Your task to perform on an android device: Open the phone app and click the voicemail tab. Image 0: 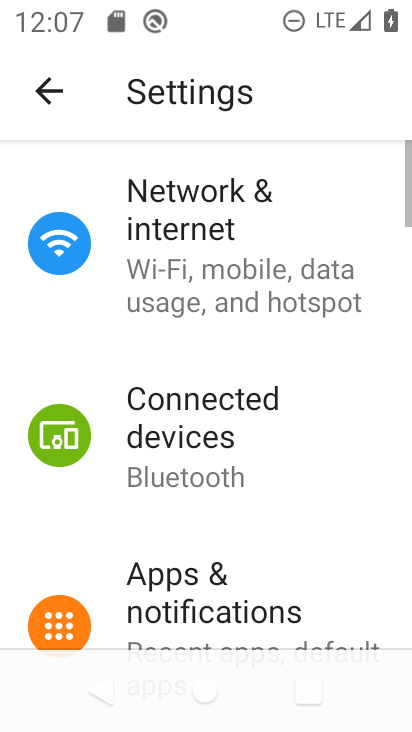
Step 0: press home button
Your task to perform on an android device: Open the phone app and click the voicemail tab. Image 1: 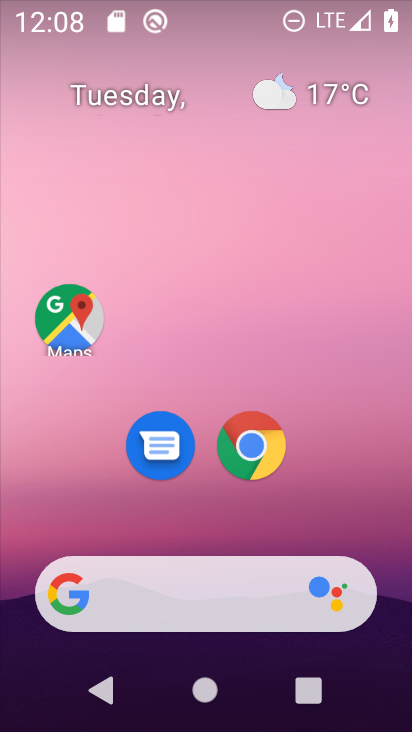
Step 1: drag from (389, 591) to (365, 121)
Your task to perform on an android device: Open the phone app and click the voicemail tab. Image 2: 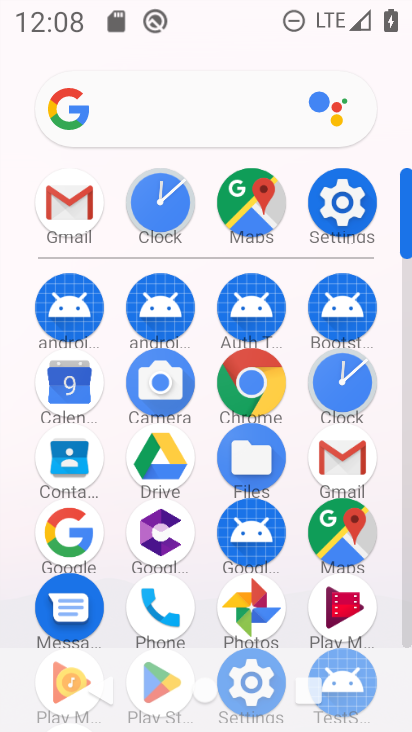
Step 2: click (165, 610)
Your task to perform on an android device: Open the phone app and click the voicemail tab. Image 3: 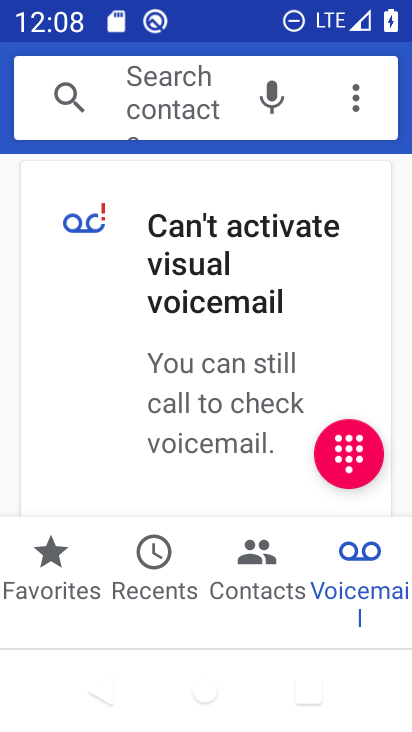
Step 3: task complete